Your task to perform on an android device: open app "Viber Messenger" (install if not already installed) Image 0: 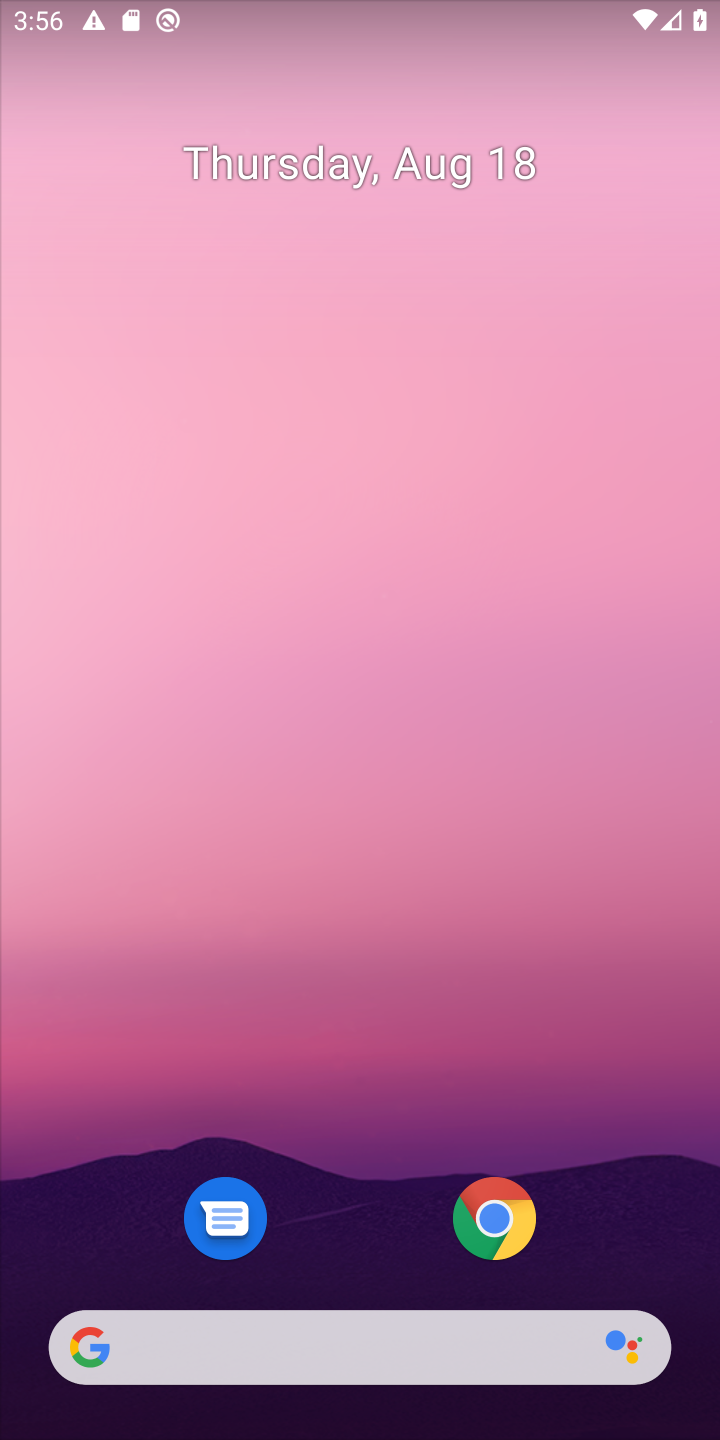
Step 0: drag from (373, 906) to (373, 267)
Your task to perform on an android device: open app "Viber Messenger" (install if not already installed) Image 1: 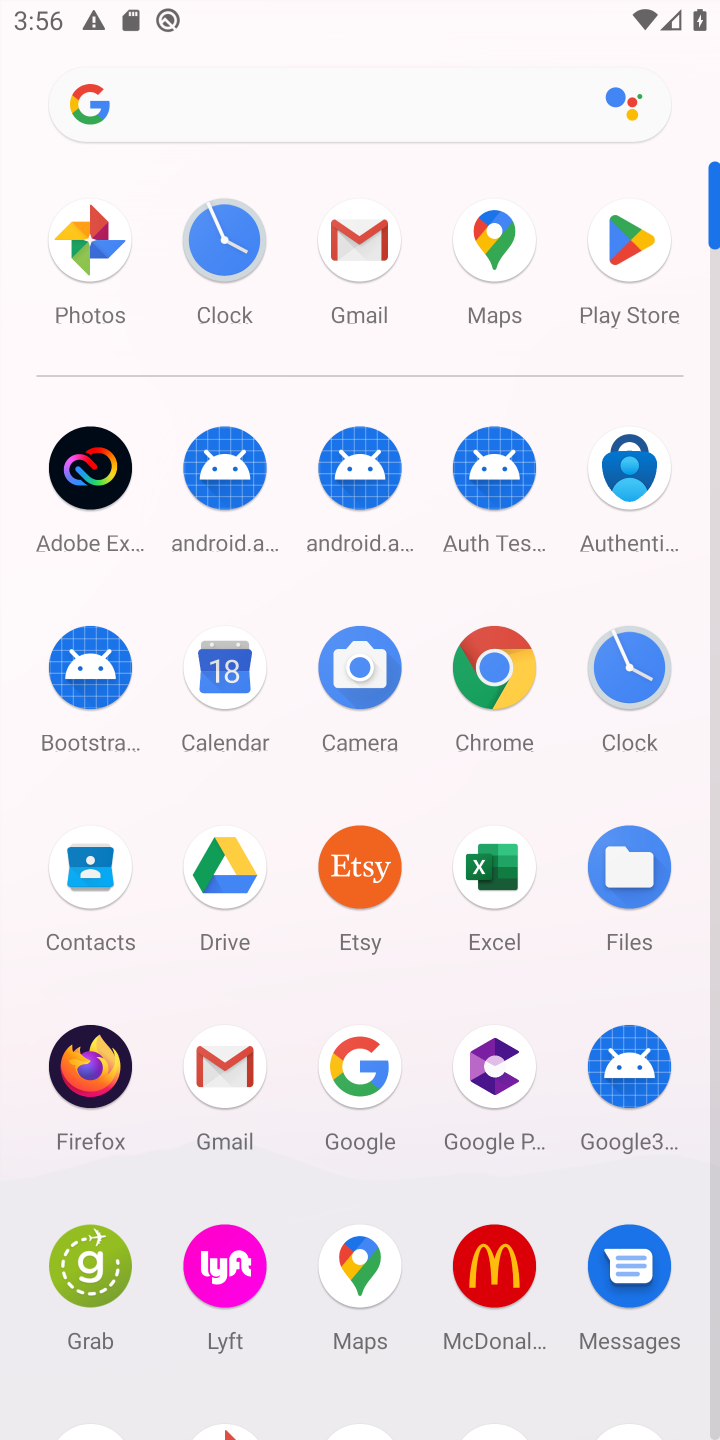
Step 1: click (625, 269)
Your task to perform on an android device: open app "Viber Messenger" (install if not already installed) Image 2: 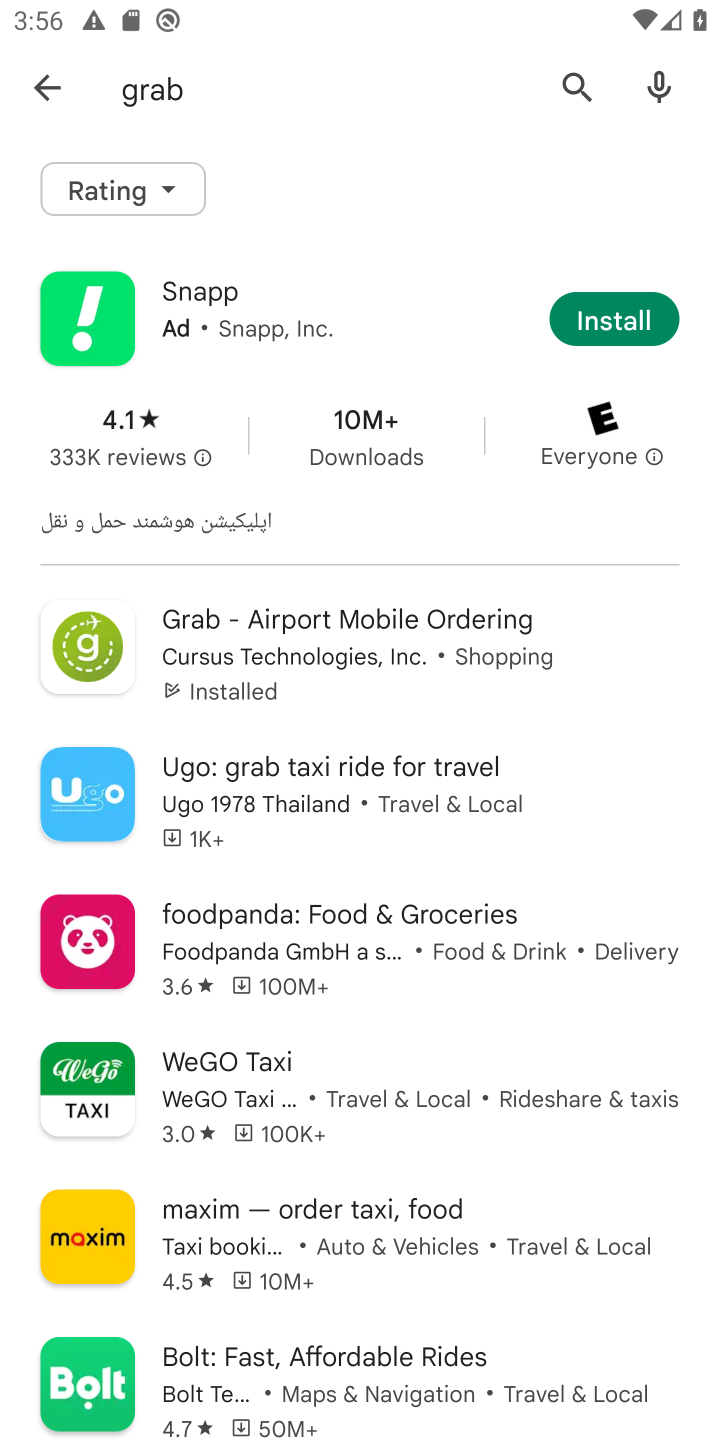
Step 2: click (563, 91)
Your task to perform on an android device: open app "Viber Messenger" (install if not already installed) Image 3: 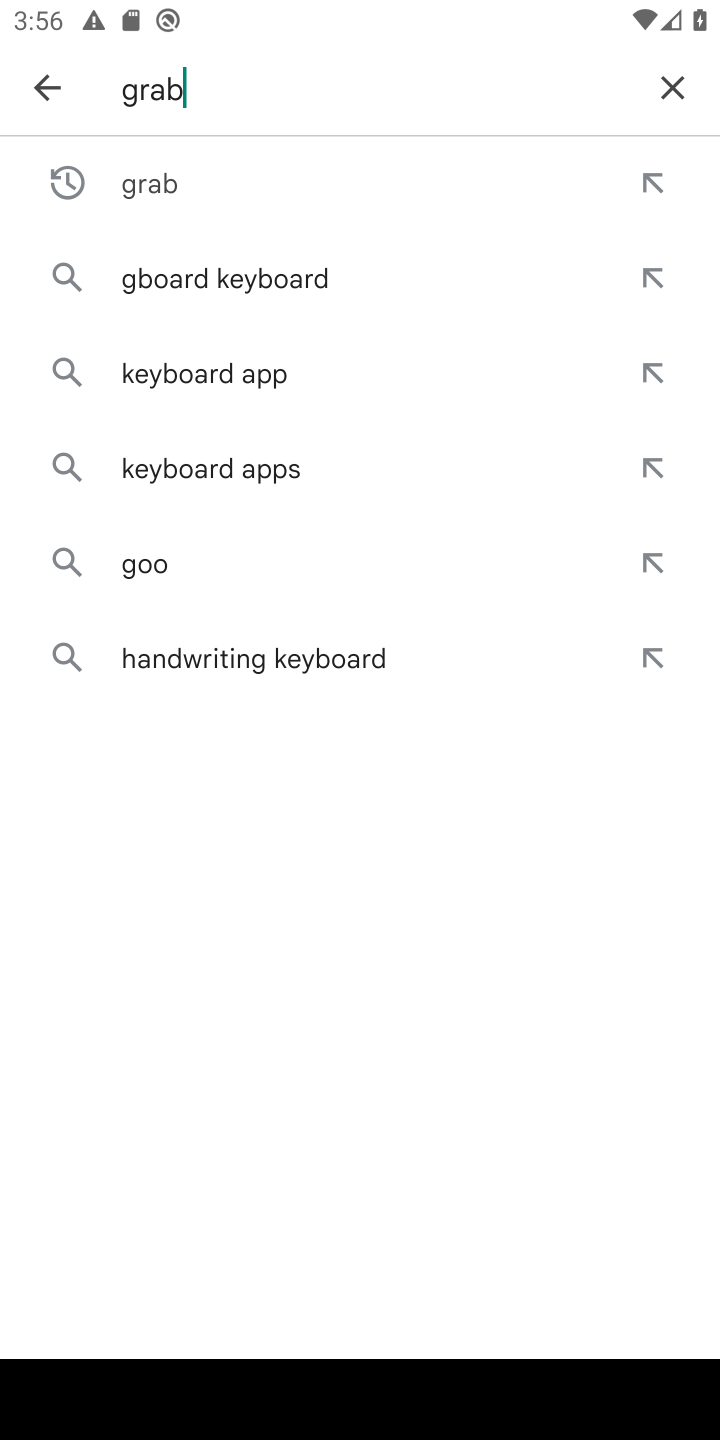
Step 3: click (668, 91)
Your task to perform on an android device: open app "Viber Messenger" (install if not already installed) Image 4: 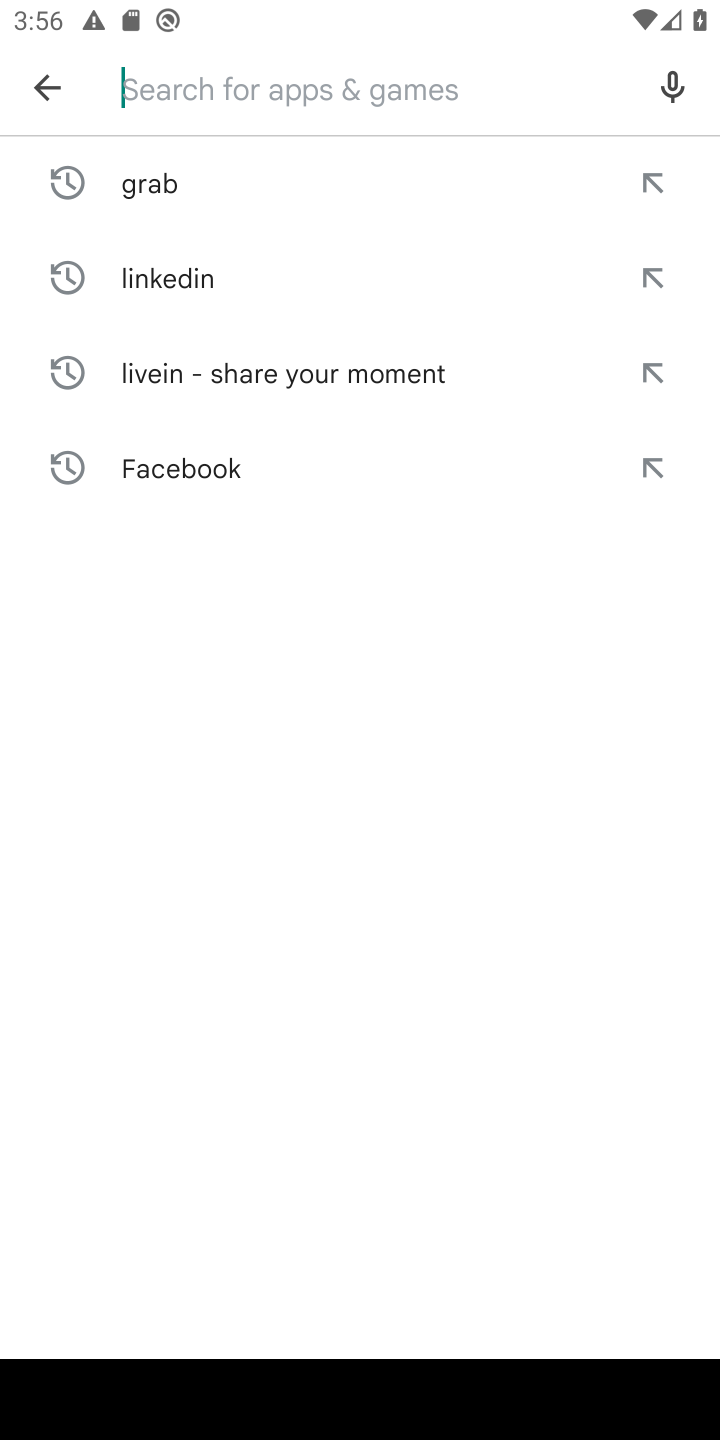
Step 4: type "Viber Messenger"
Your task to perform on an android device: open app "Viber Messenger" (install if not already installed) Image 5: 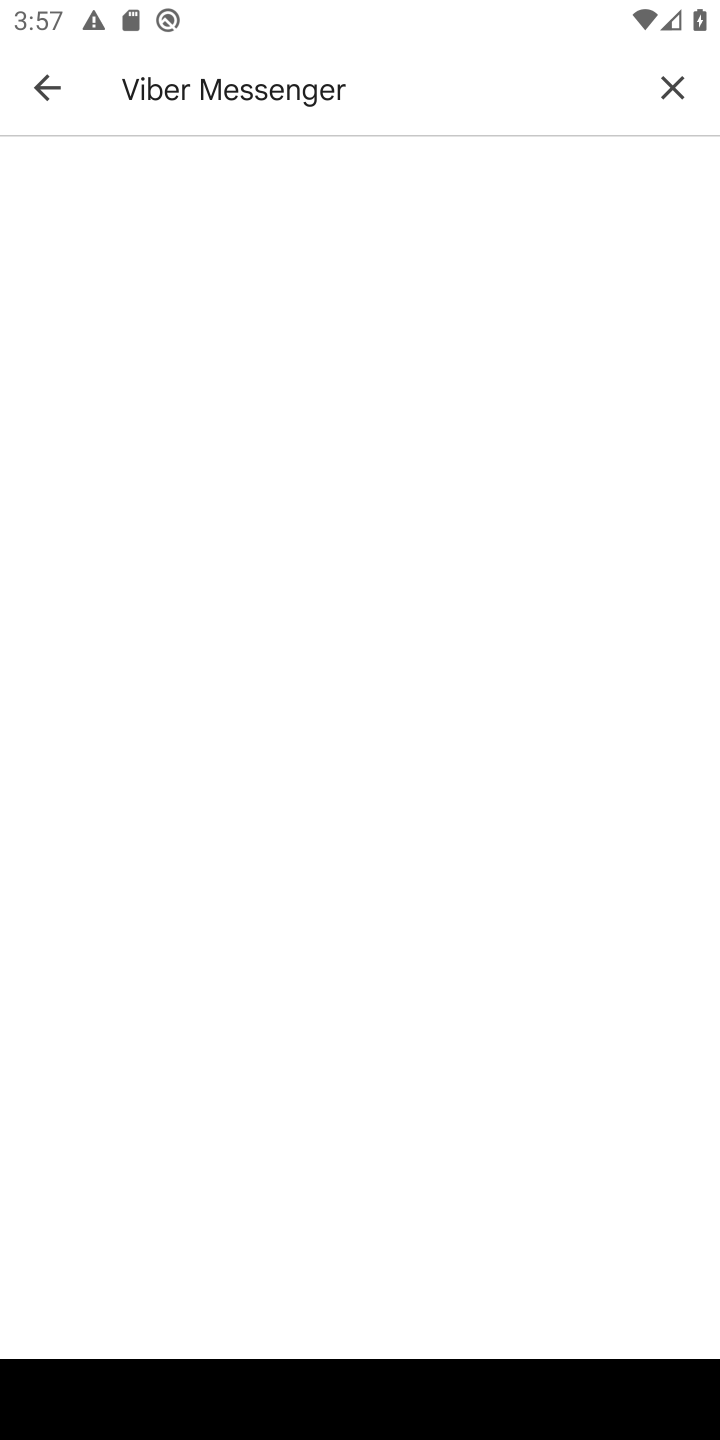
Step 5: task complete